Your task to perform on an android device: turn on data saver in the chrome app Image 0: 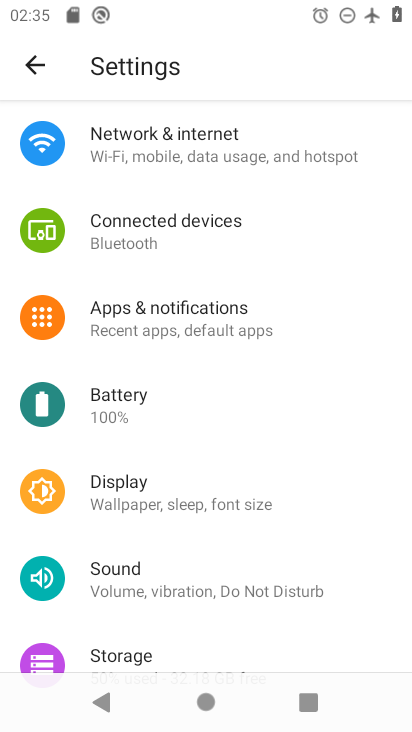
Step 0: drag from (184, 560) to (250, 258)
Your task to perform on an android device: turn on data saver in the chrome app Image 1: 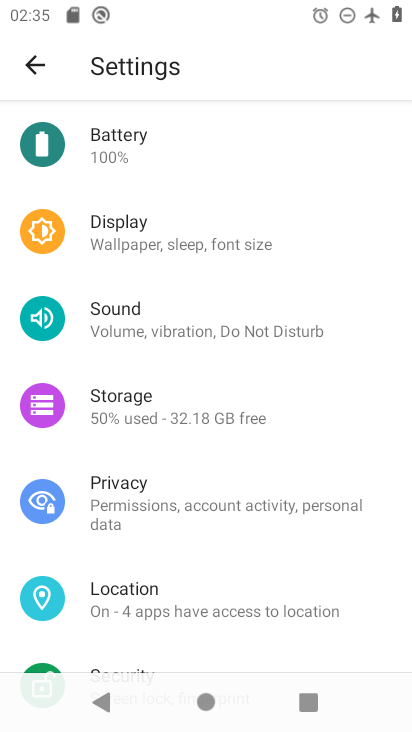
Step 1: drag from (233, 180) to (195, 686)
Your task to perform on an android device: turn on data saver in the chrome app Image 2: 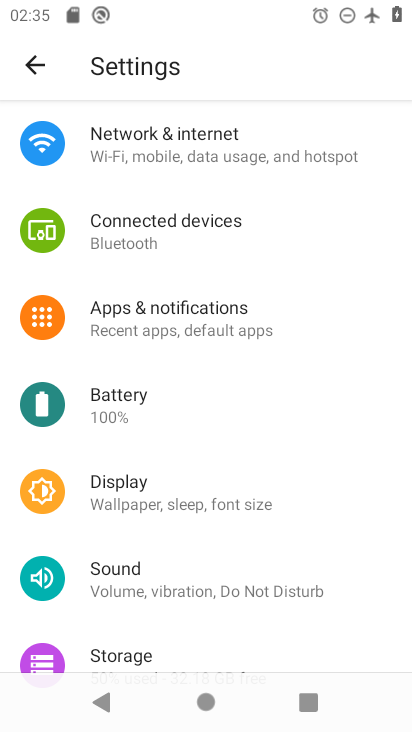
Step 2: click (193, 170)
Your task to perform on an android device: turn on data saver in the chrome app Image 3: 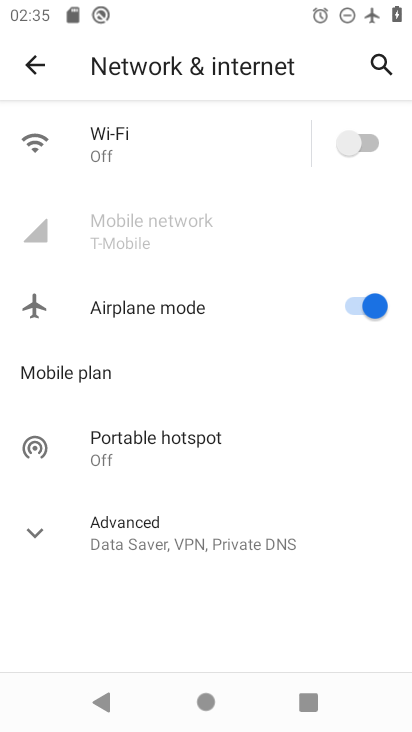
Step 3: click (361, 292)
Your task to perform on an android device: turn on data saver in the chrome app Image 4: 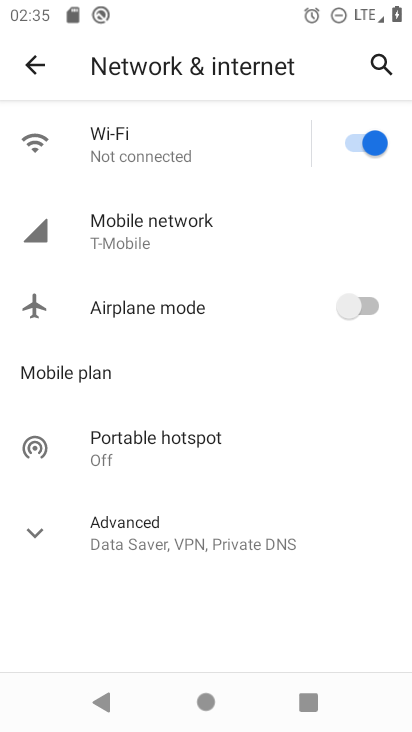
Step 4: click (226, 220)
Your task to perform on an android device: turn on data saver in the chrome app Image 5: 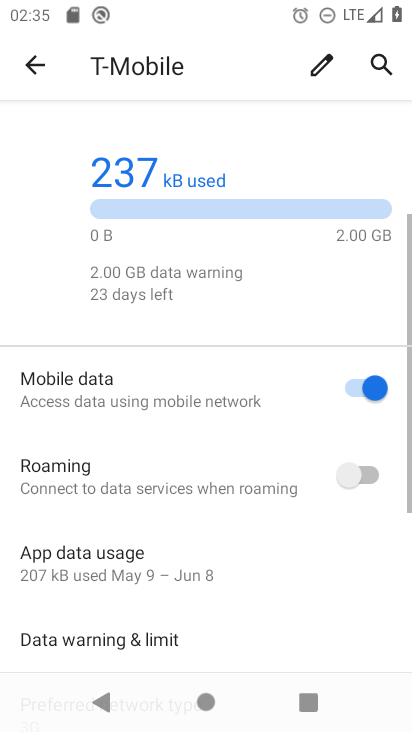
Step 5: drag from (172, 542) to (213, 327)
Your task to perform on an android device: turn on data saver in the chrome app Image 6: 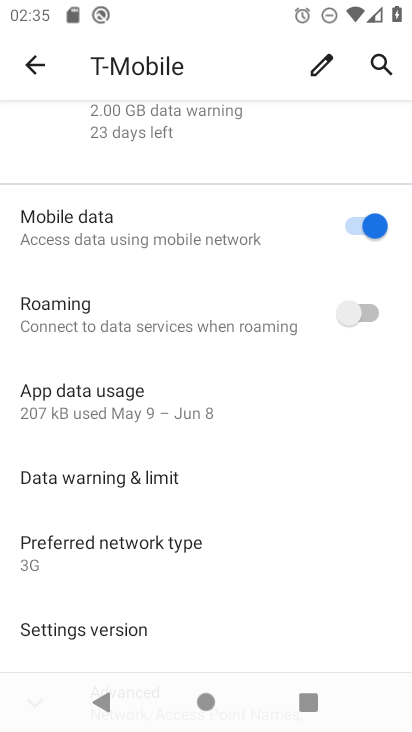
Step 6: press home button
Your task to perform on an android device: turn on data saver in the chrome app Image 7: 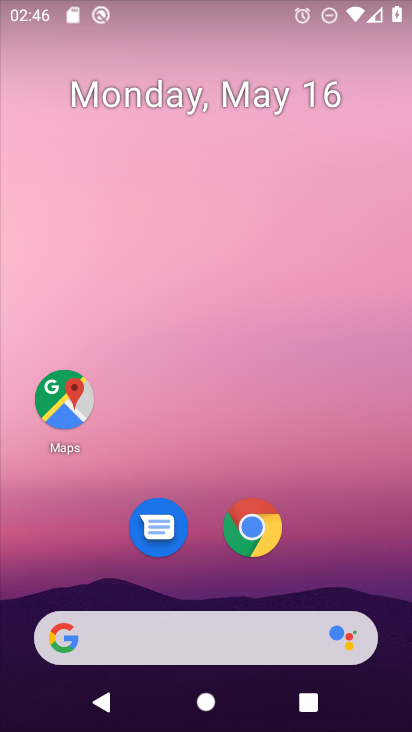
Step 7: click (325, 537)
Your task to perform on an android device: turn on data saver in the chrome app Image 8: 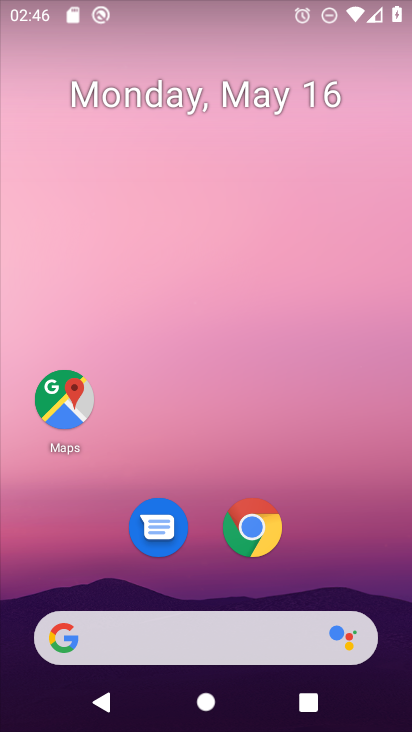
Step 8: click (244, 558)
Your task to perform on an android device: turn on data saver in the chrome app Image 9: 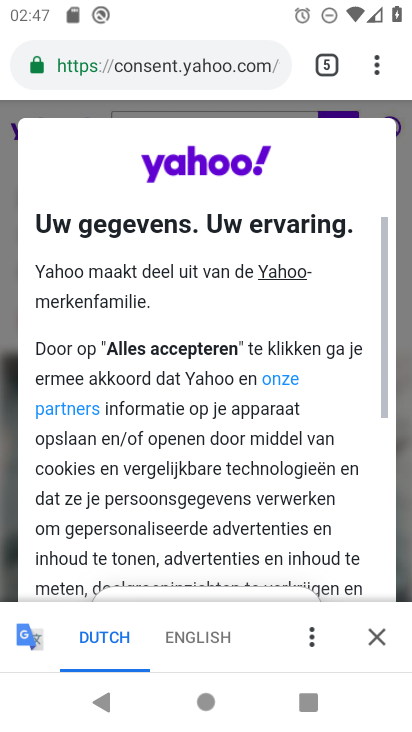
Step 9: click (373, 70)
Your task to perform on an android device: turn on data saver in the chrome app Image 10: 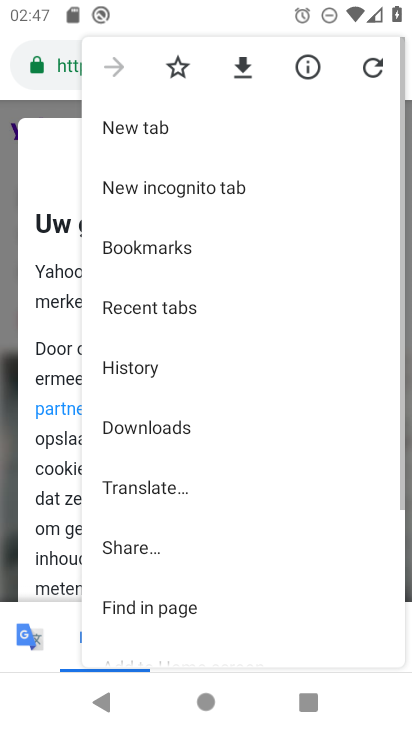
Step 10: drag from (136, 569) to (200, 167)
Your task to perform on an android device: turn on data saver in the chrome app Image 11: 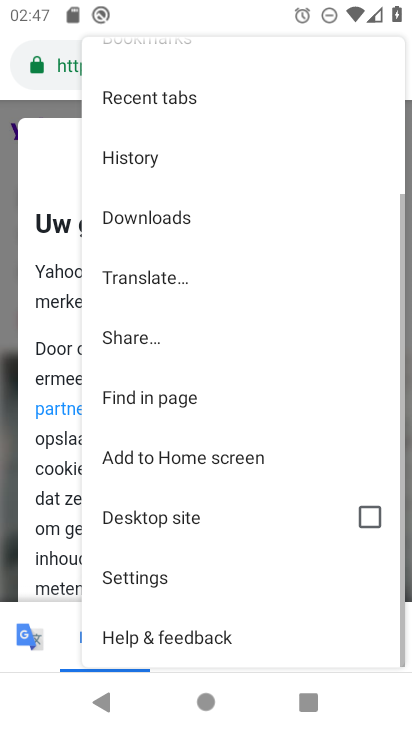
Step 11: click (157, 567)
Your task to perform on an android device: turn on data saver in the chrome app Image 12: 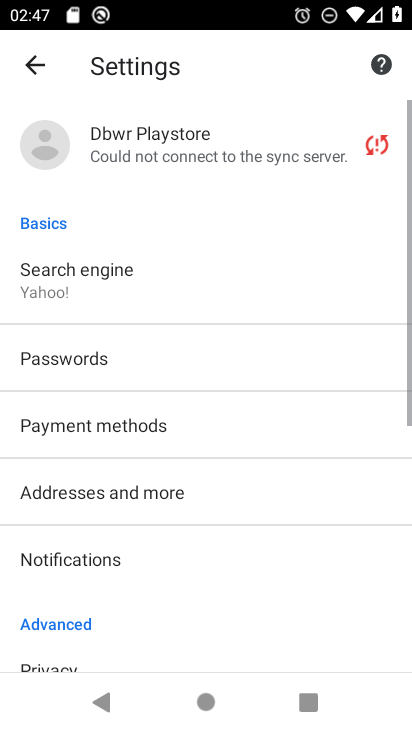
Step 12: drag from (167, 593) to (209, 364)
Your task to perform on an android device: turn on data saver in the chrome app Image 13: 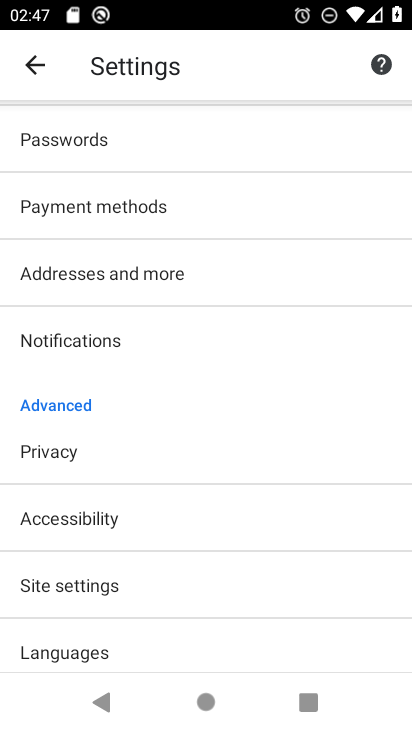
Step 13: drag from (146, 638) to (174, 496)
Your task to perform on an android device: turn on data saver in the chrome app Image 14: 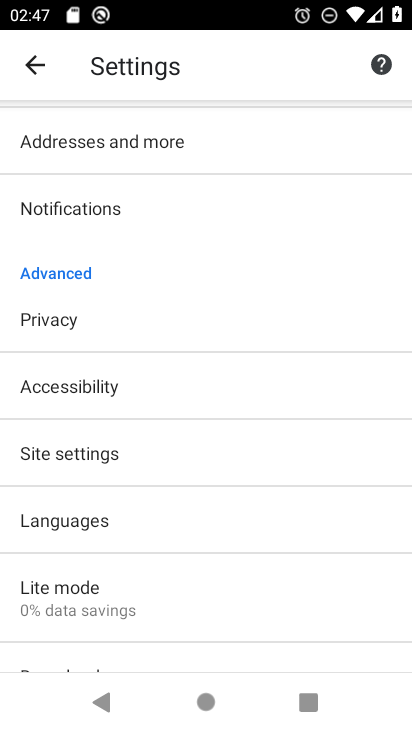
Step 14: click (131, 611)
Your task to perform on an android device: turn on data saver in the chrome app Image 15: 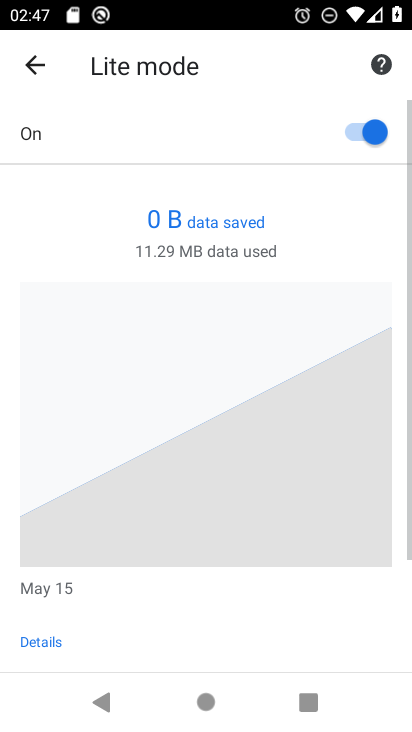
Step 15: click (343, 136)
Your task to perform on an android device: turn on data saver in the chrome app Image 16: 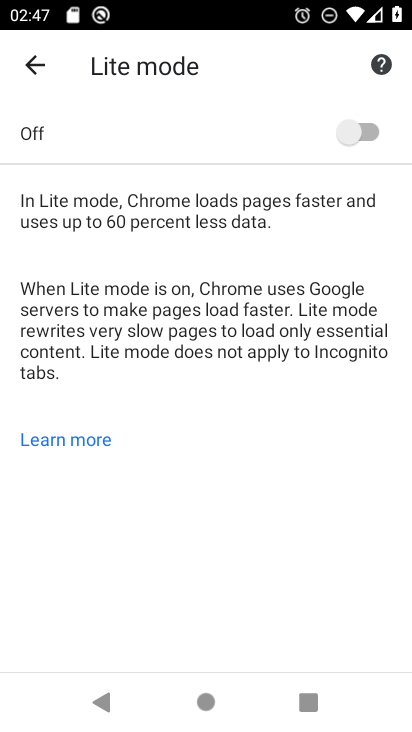
Step 16: task complete